Your task to perform on an android device: Set the phone to "Do not disturb". Image 0: 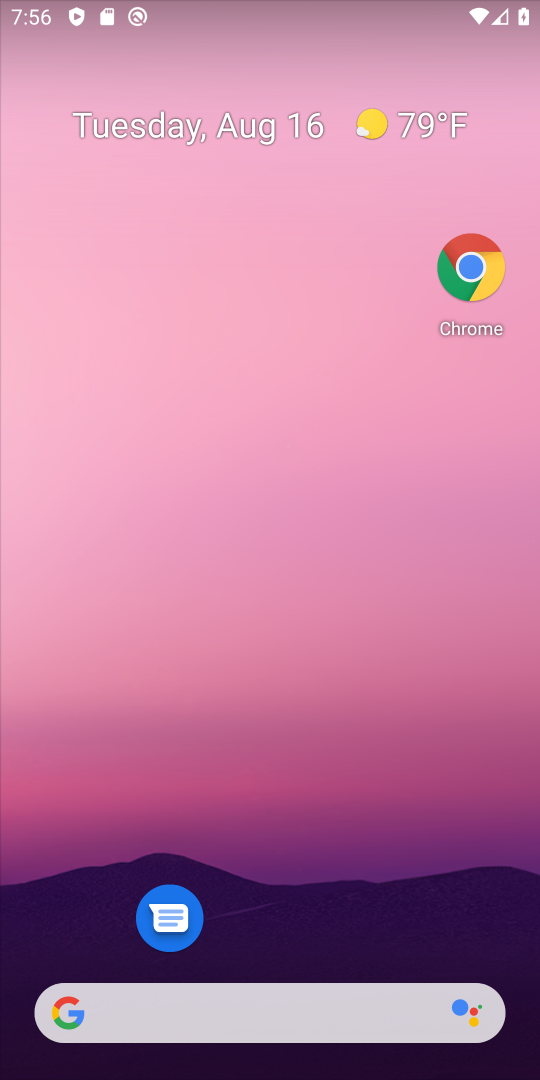
Step 0: drag from (261, 1028) to (292, 125)
Your task to perform on an android device: Set the phone to "Do not disturb". Image 1: 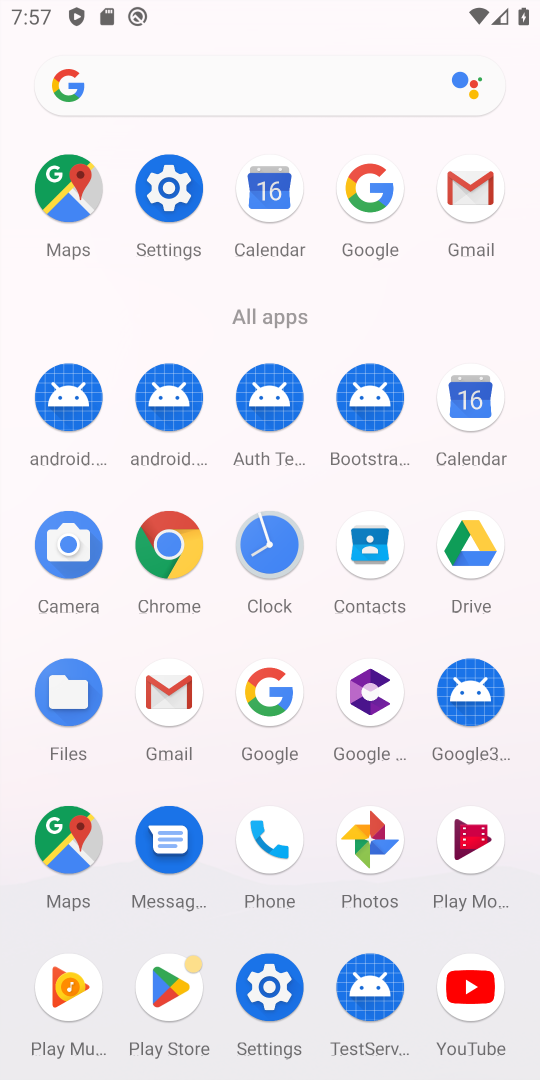
Step 1: drag from (297, 0) to (306, 651)
Your task to perform on an android device: Set the phone to "Do not disturb". Image 2: 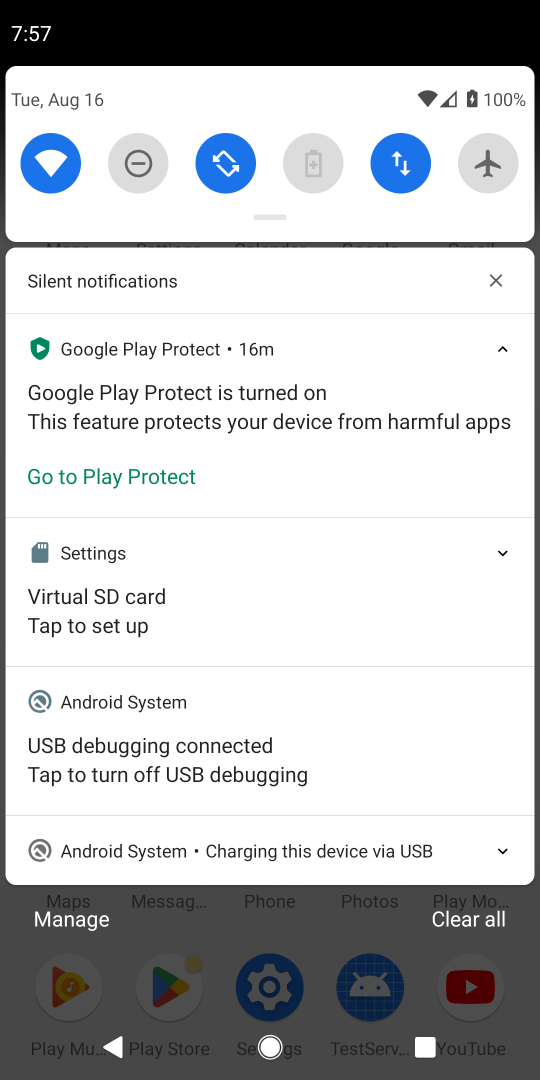
Step 2: click (140, 157)
Your task to perform on an android device: Set the phone to "Do not disturb". Image 3: 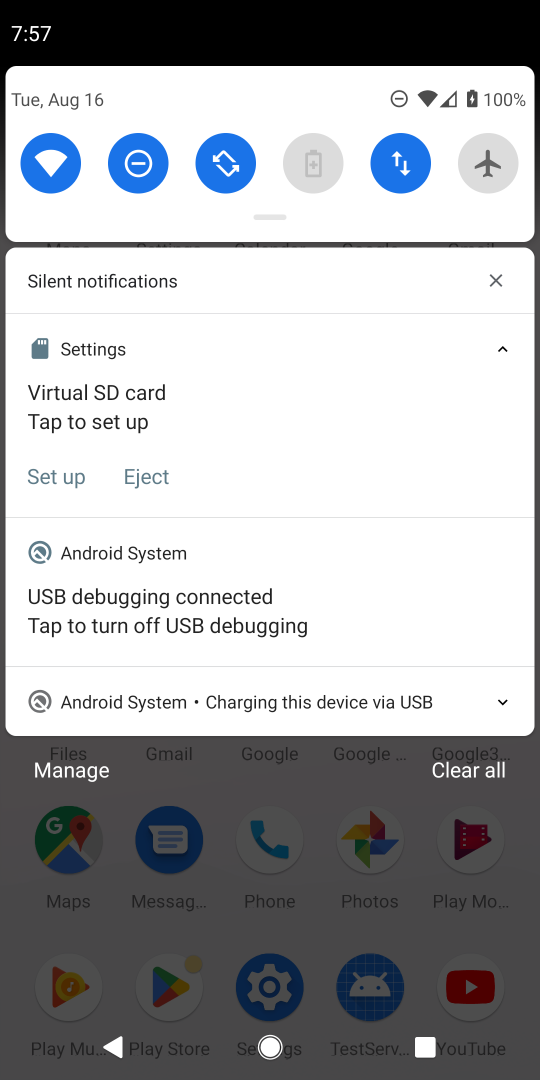
Step 3: task complete